Your task to perform on an android device: turn on sleep mode Image 0: 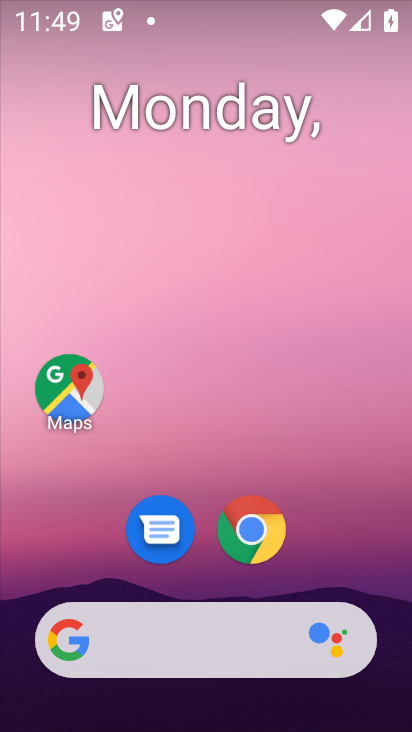
Step 0: press home button
Your task to perform on an android device: turn on sleep mode Image 1: 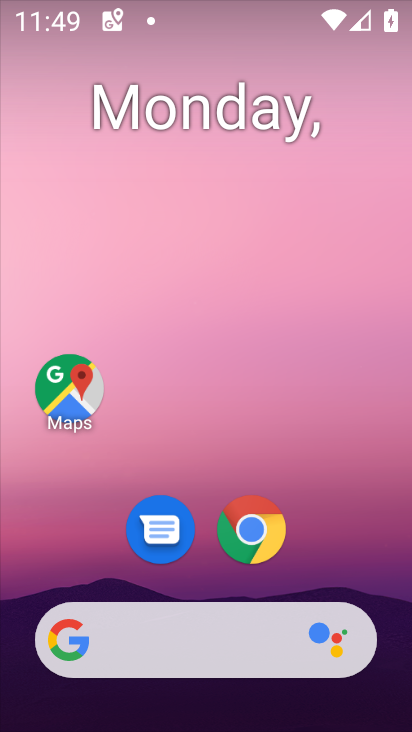
Step 1: drag from (192, 690) to (179, 67)
Your task to perform on an android device: turn on sleep mode Image 2: 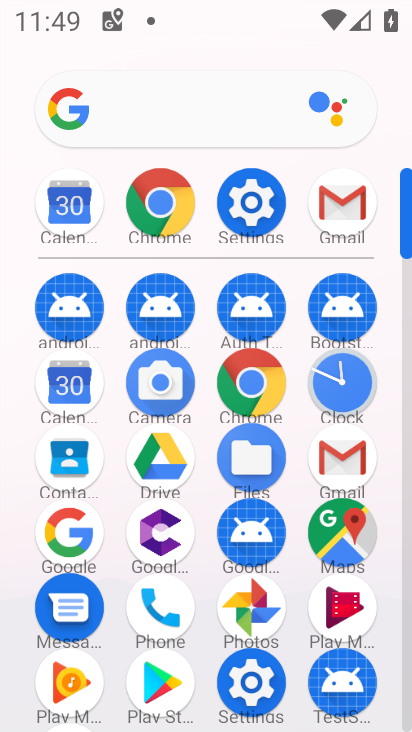
Step 2: click (248, 222)
Your task to perform on an android device: turn on sleep mode Image 3: 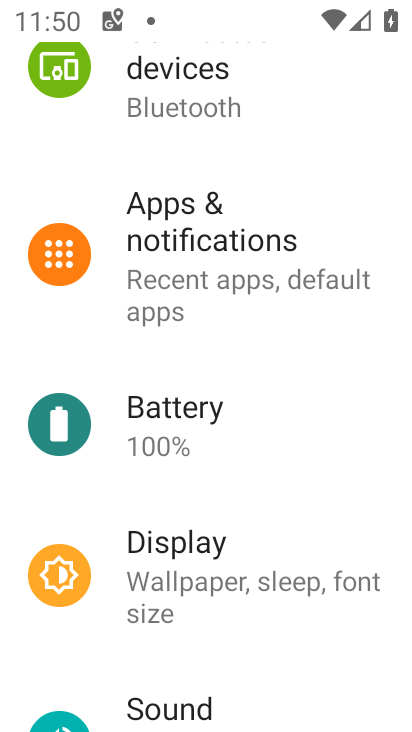
Step 3: drag from (232, 171) to (255, 308)
Your task to perform on an android device: turn on sleep mode Image 4: 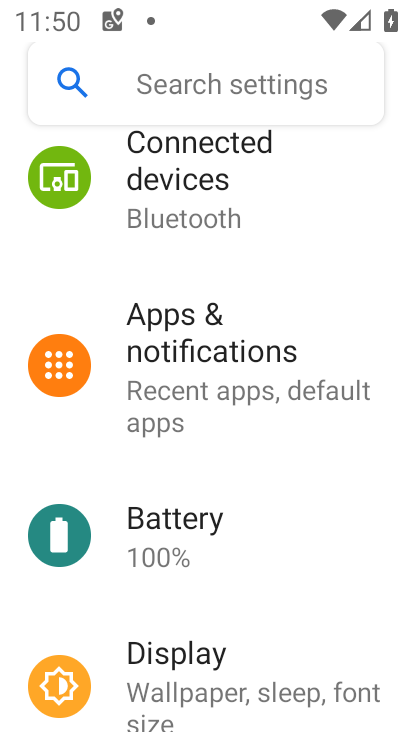
Step 4: click (218, 107)
Your task to perform on an android device: turn on sleep mode Image 5: 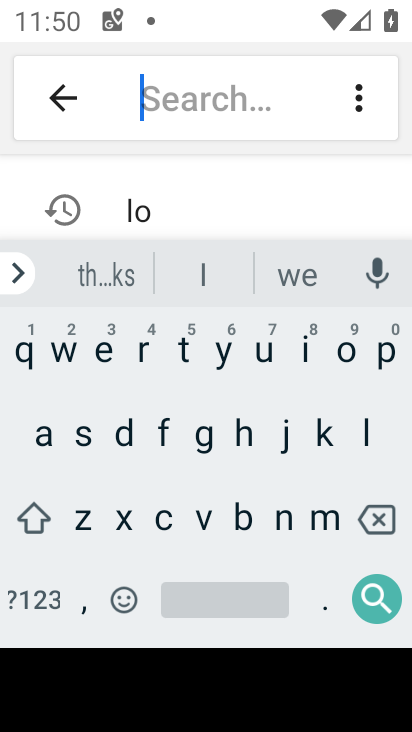
Step 5: click (83, 438)
Your task to perform on an android device: turn on sleep mode Image 6: 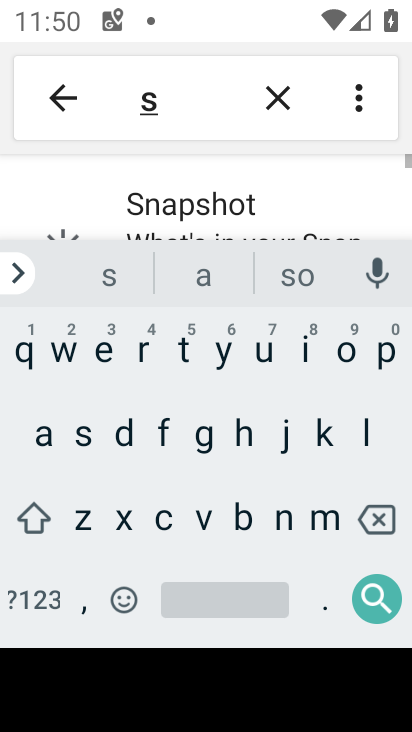
Step 6: click (362, 428)
Your task to perform on an android device: turn on sleep mode Image 7: 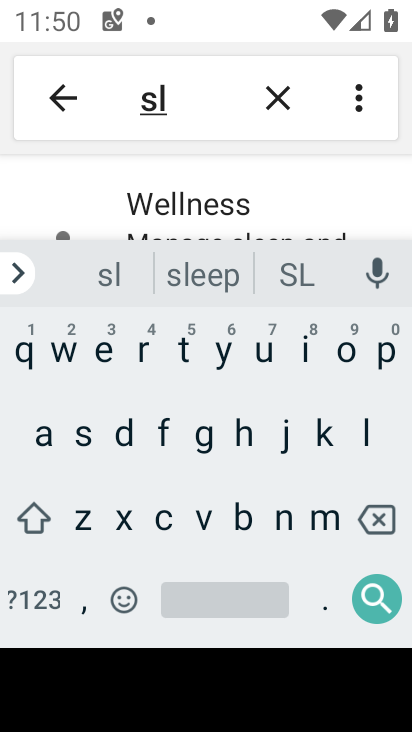
Step 7: click (223, 214)
Your task to perform on an android device: turn on sleep mode Image 8: 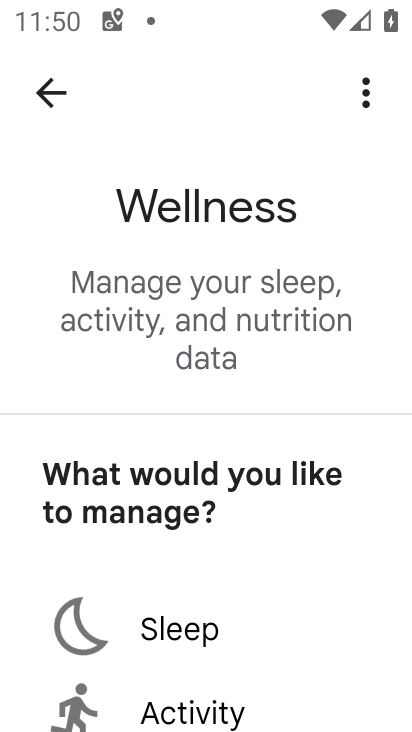
Step 8: click (176, 629)
Your task to perform on an android device: turn on sleep mode Image 9: 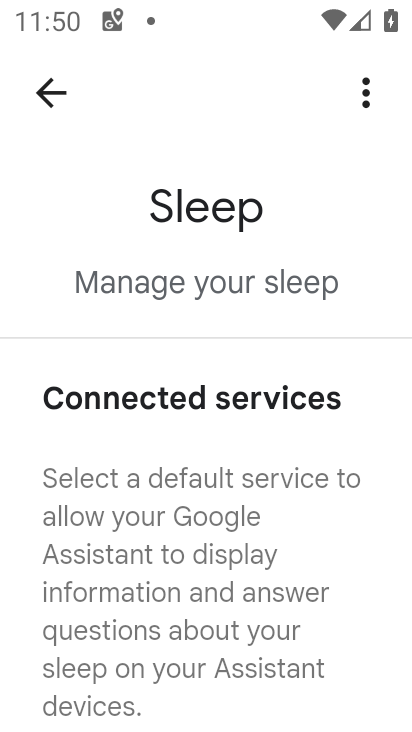
Step 9: task complete